Your task to perform on an android device: turn off notifications in google photos Image 0: 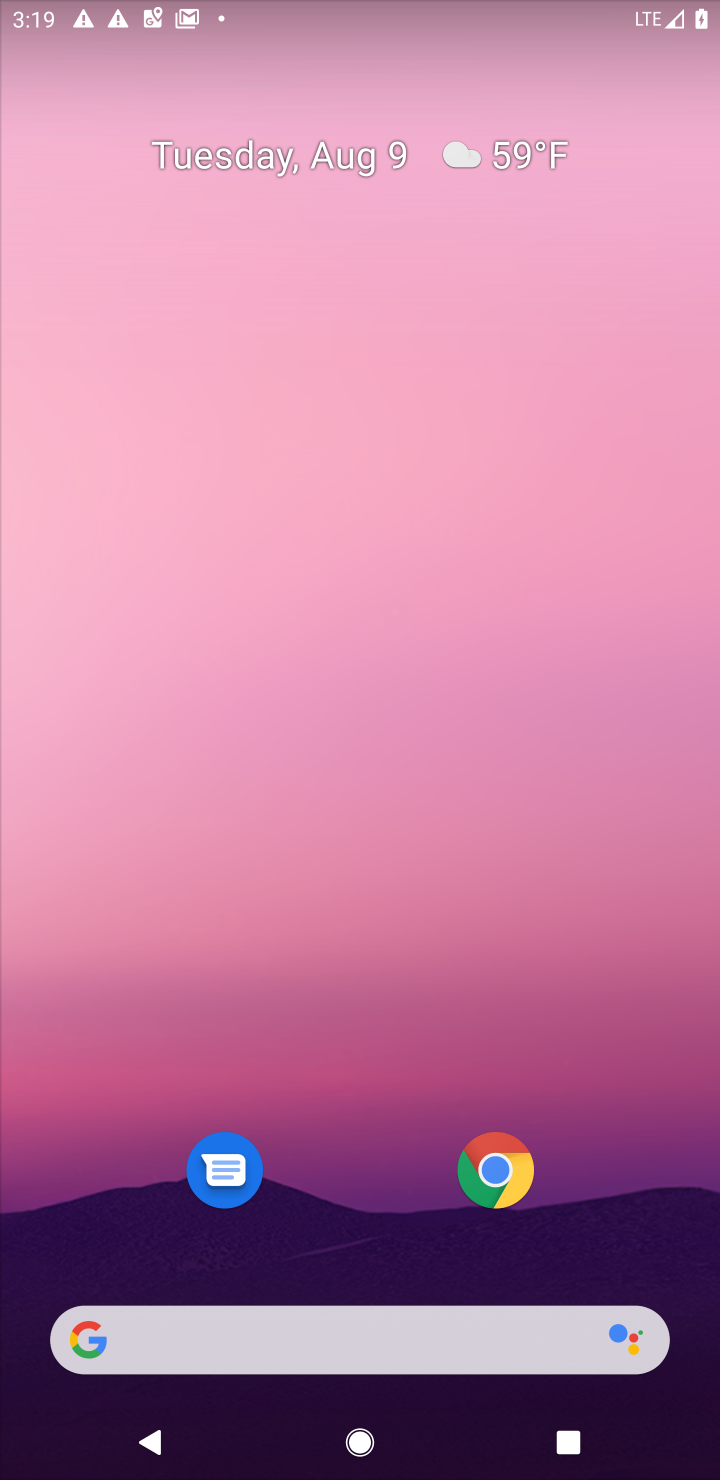
Step 0: press home button
Your task to perform on an android device: turn off notifications in google photos Image 1: 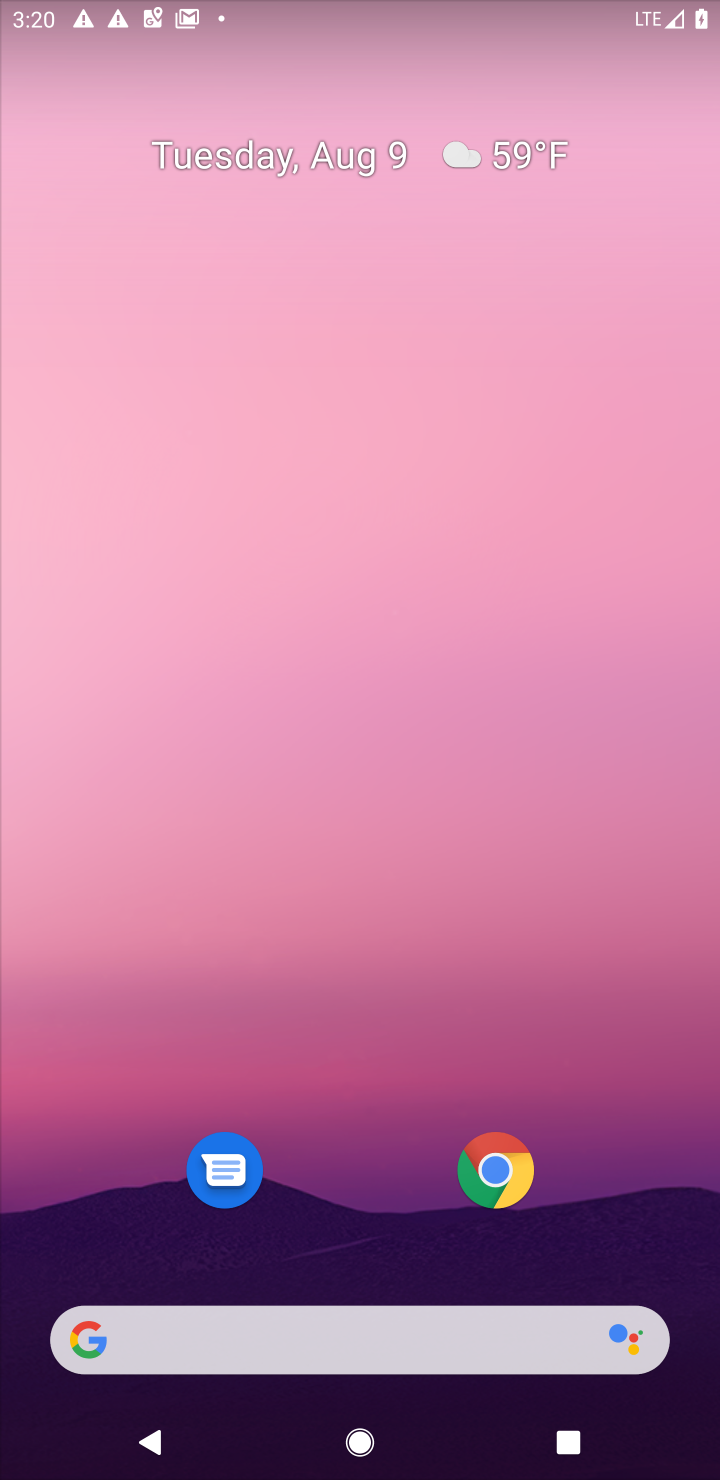
Step 1: drag from (359, 1064) to (337, 371)
Your task to perform on an android device: turn off notifications in google photos Image 2: 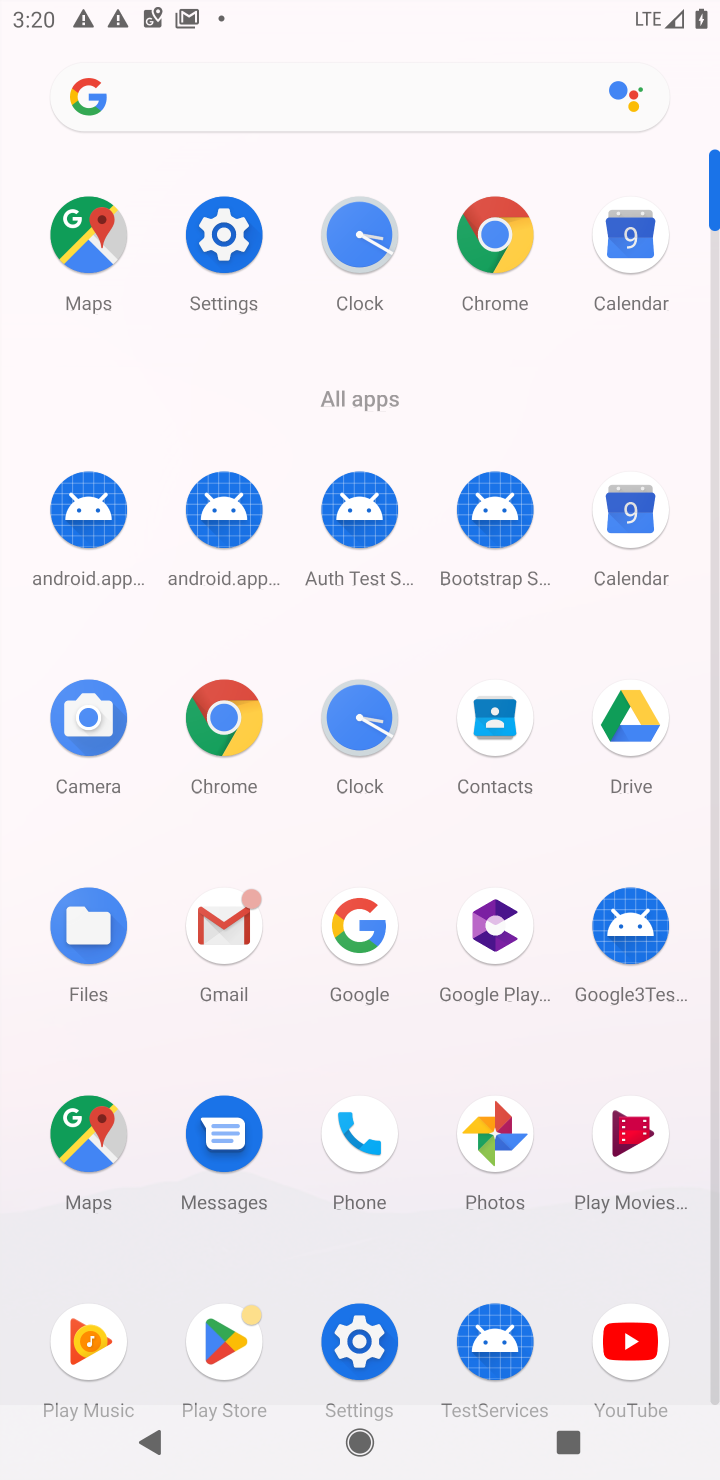
Step 2: click (506, 1119)
Your task to perform on an android device: turn off notifications in google photos Image 3: 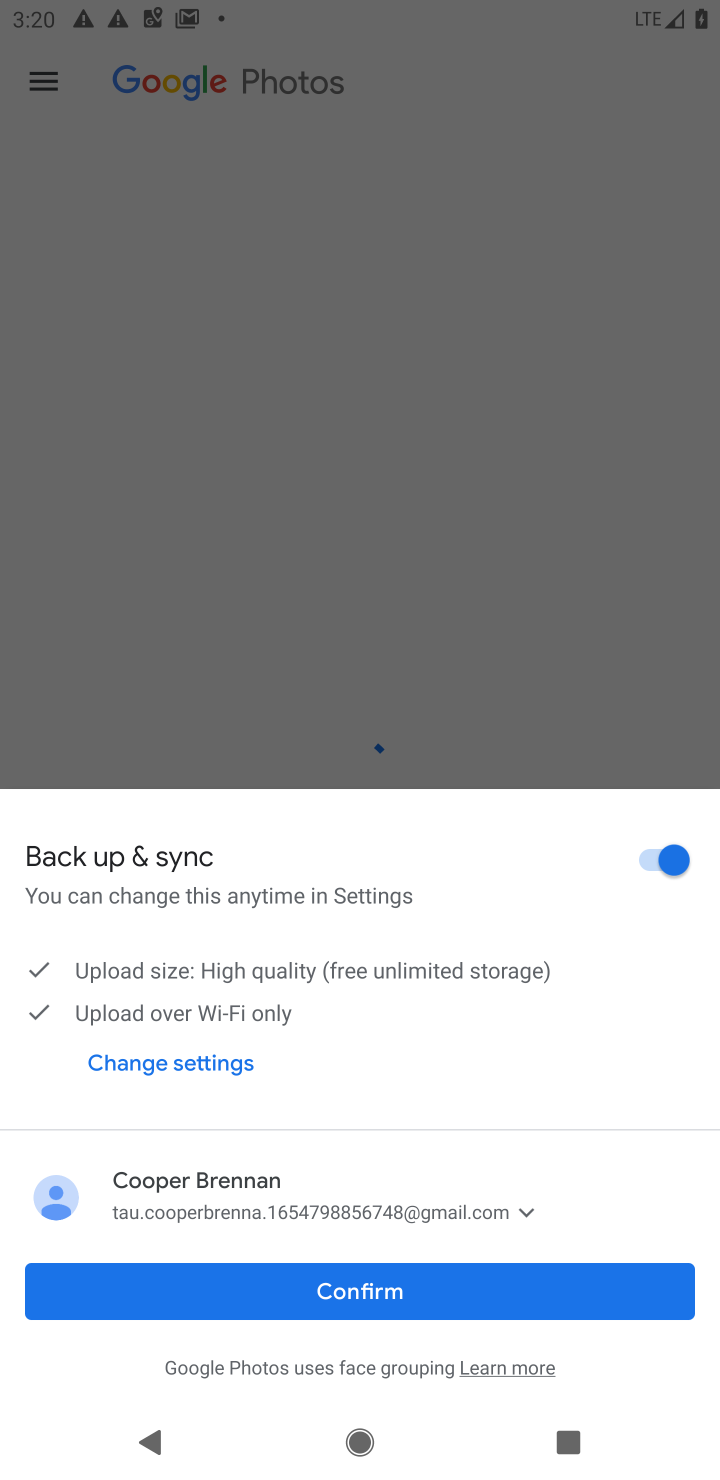
Step 3: click (276, 1295)
Your task to perform on an android device: turn off notifications in google photos Image 4: 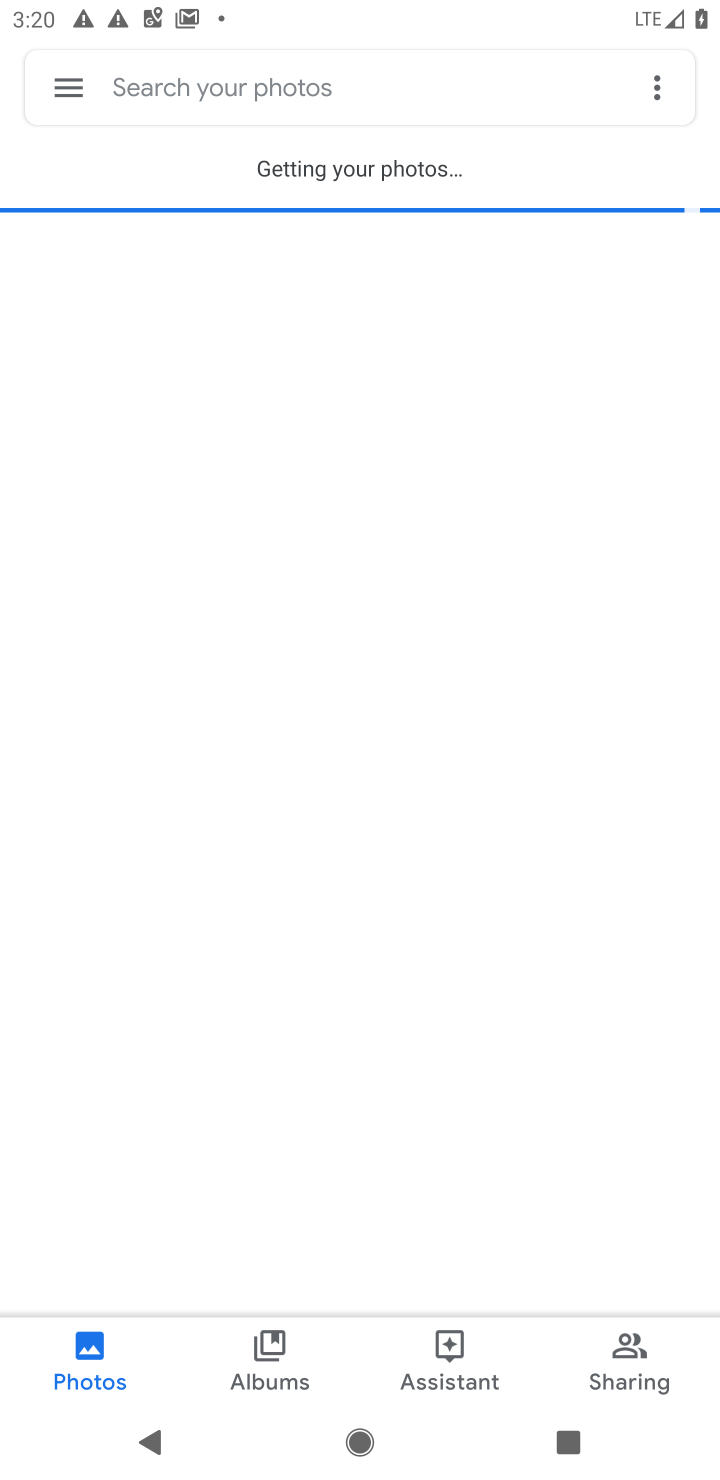
Step 4: click (72, 82)
Your task to perform on an android device: turn off notifications in google photos Image 5: 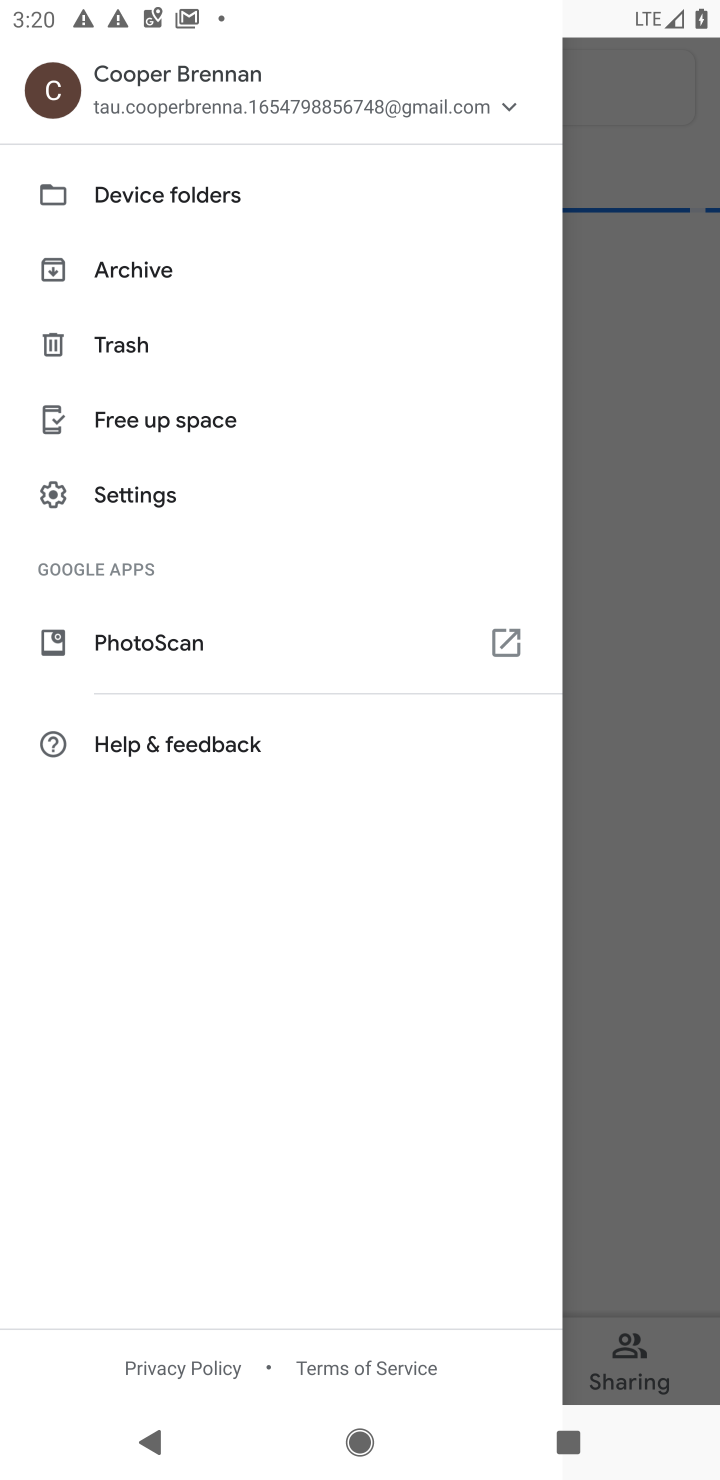
Step 5: click (123, 510)
Your task to perform on an android device: turn off notifications in google photos Image 6: 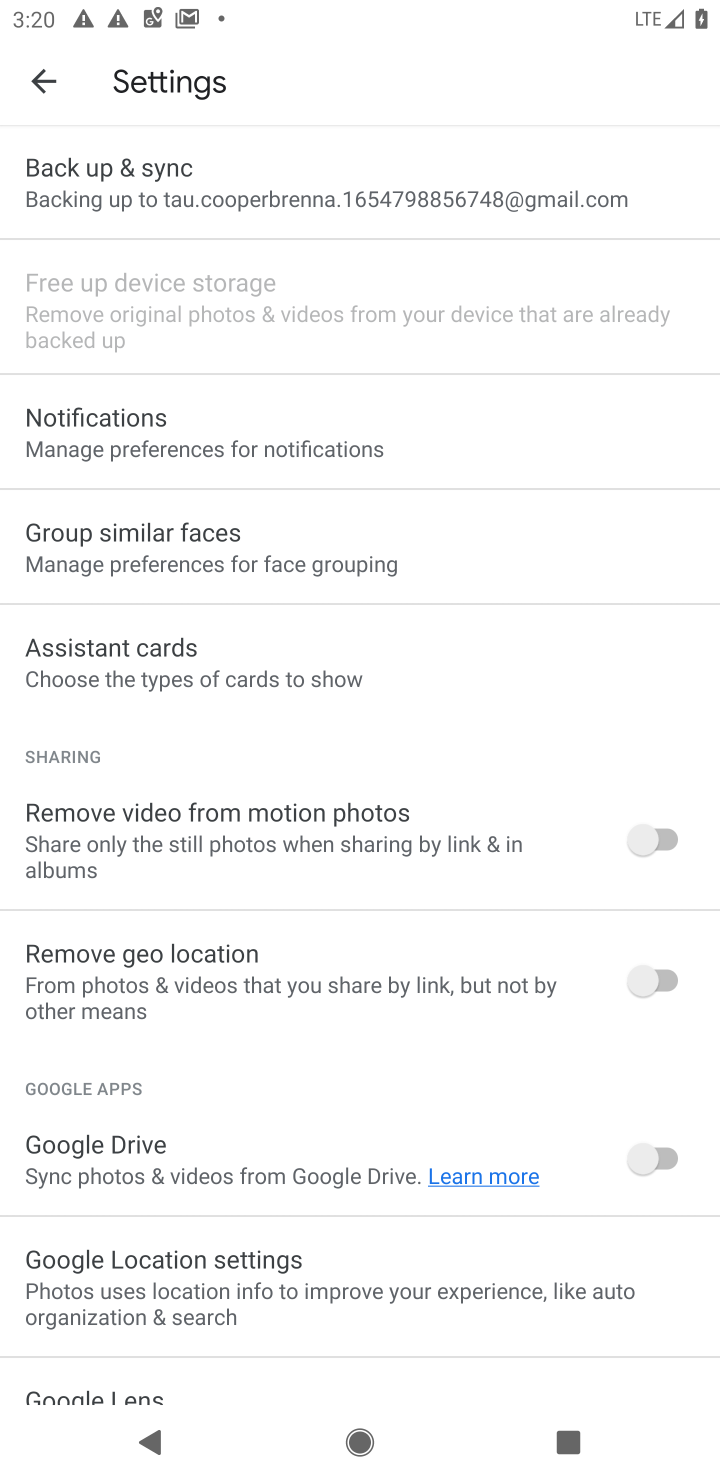
Step 6: click (147, 417)
Your task to perform on an android device: turn off notifications in google photos Image 7: 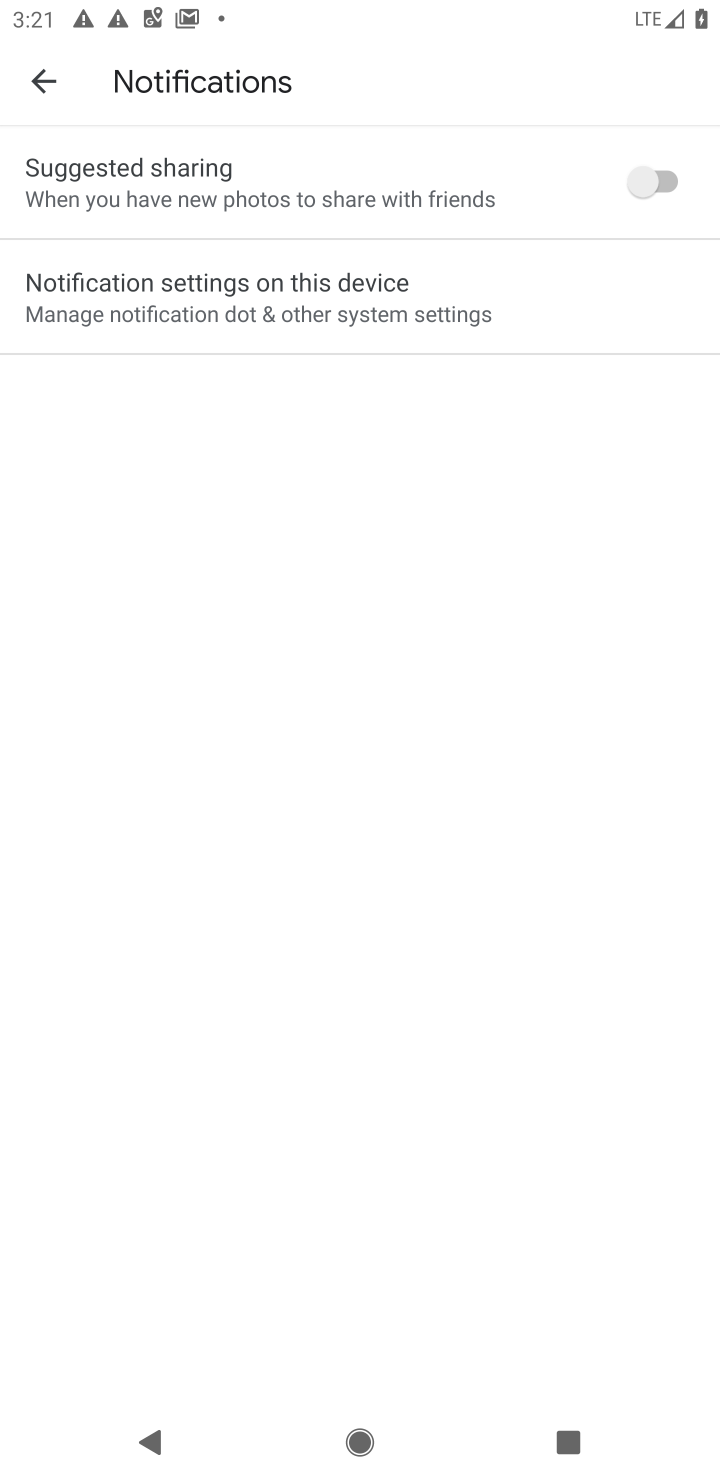
Step 7: click (492, 297)
Your task to perform on an android device: turn off notifications in google photos Image 8: 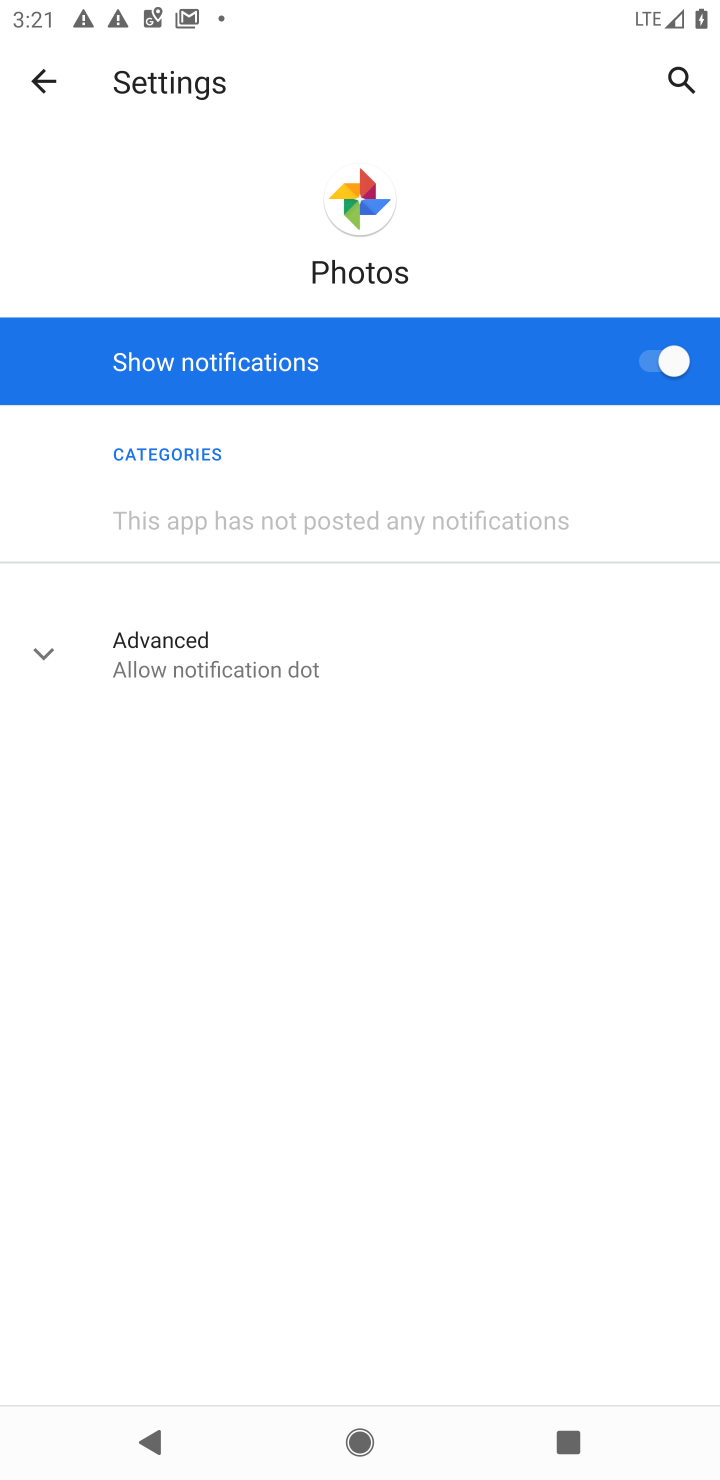
Step 8: click (664, 373)
Your task to perform on an android device: turn off notifications in google photos Image 9: 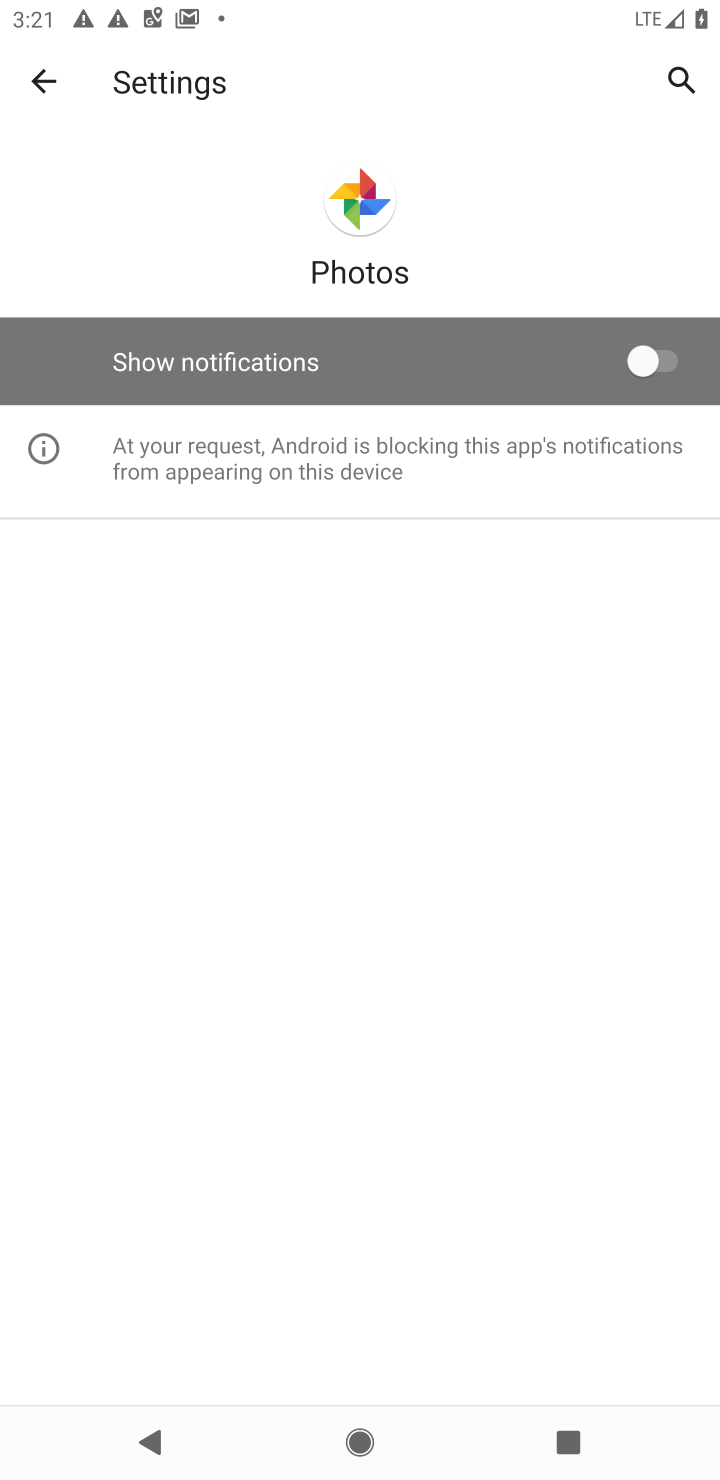
Step 9: task complete